Your task to perform on an android device: Open the calendar app, open the side menu, and click the "Day" option Image 0: 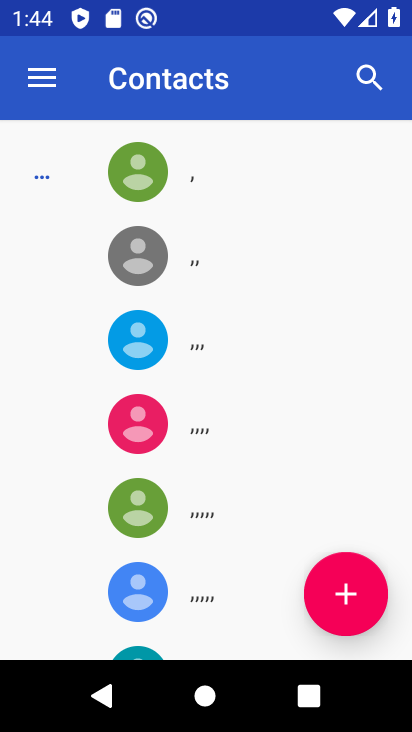
Step 0: press home button
Your task to perform on an android device: Open the calendar app, open the side menu, and click the "Day" option Image 1: 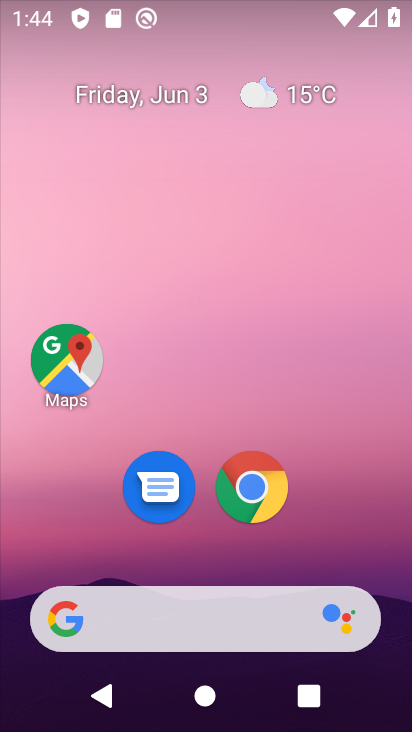
Step 1: drag from (336, 513) to (184, 5)
Your task to perform on an android device: Open the calendar app, open the side menu, and click the "Day" option Image 2: 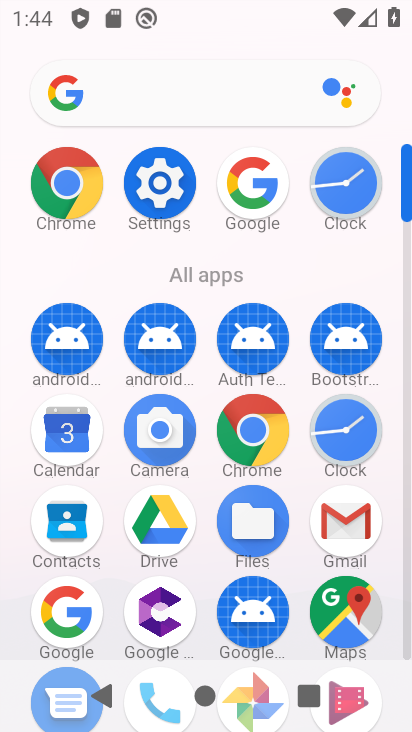
Step 2: click (68, 431)
Your task to perform on an android device: Open the calendar app, open the side menu, and click the "Day" option Image 3: 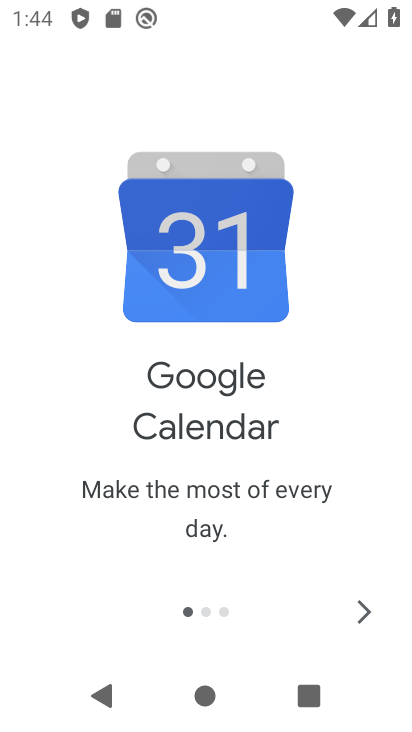
Step 3: click (369, 610)
Your task to perform on an android device: Open the calendar app, open the side menu, and click the "Day" option Image 4: 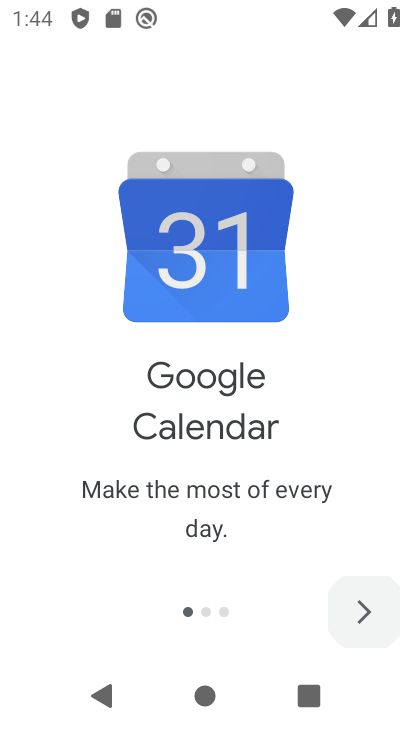
Step 4: click (362, 610)
Your task to perform on an android device: Open the calendar app, open the side menu, and click the "Day" option Image 5: 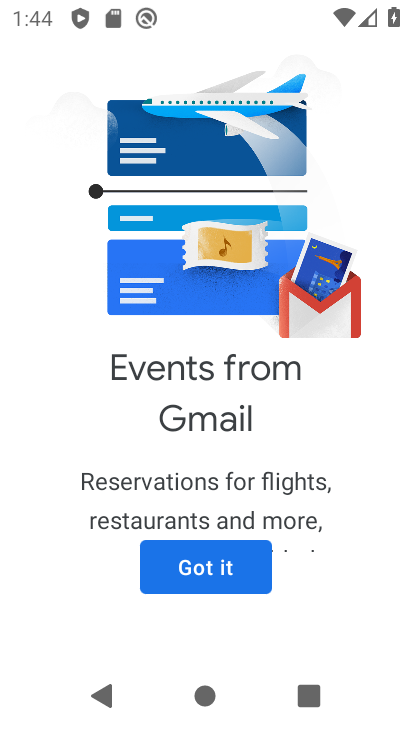
Step 5: click (257, 582)
Your task to perform on an android device: Open the calendar app, open the side menu, and click the "Day" option Image 6: 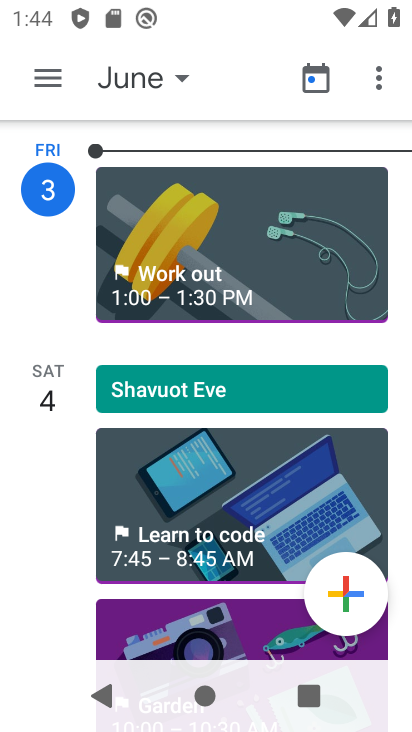
Step 6: click (45, 79)
Your task to perform on an android device: Open the calendar app, open the side menu, and click the "Day" option Image 7: 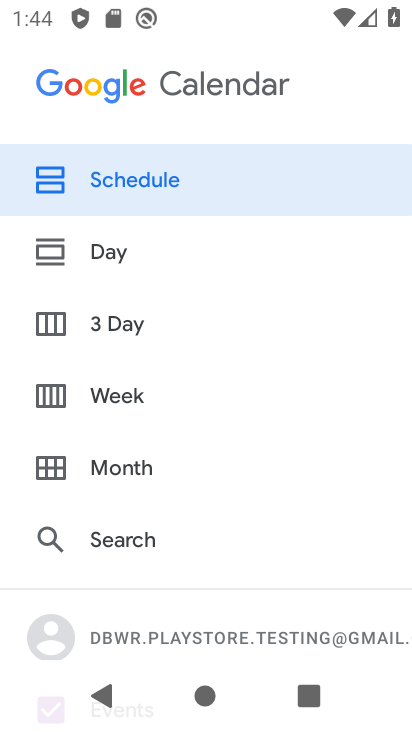
Step 7: click (112, 259)
Your task to perform on an android device: Open the calendar app, open the side menu, and click the "Day" option Image 8: 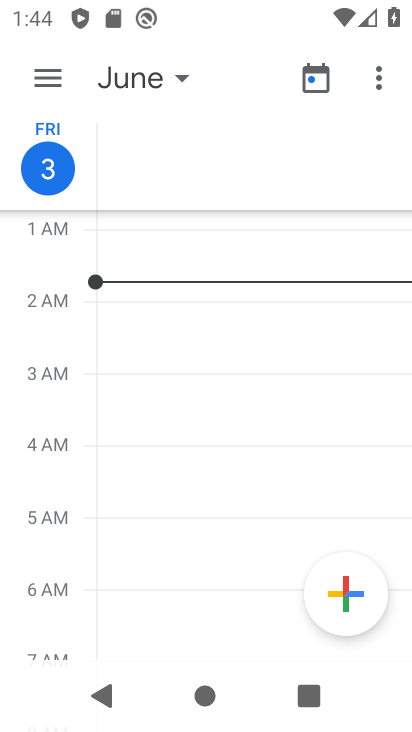
Step 8: task complete